Your task to perform on an android device: Find coffee shops on Maps Image 0: 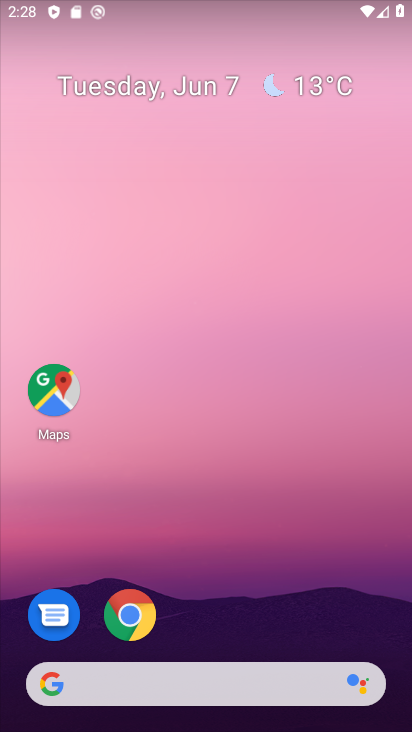
Step 0: drag from (205, 645) to (284, 136)
Your task to perform on an android device: Find coffee shops on Maps Image 1: 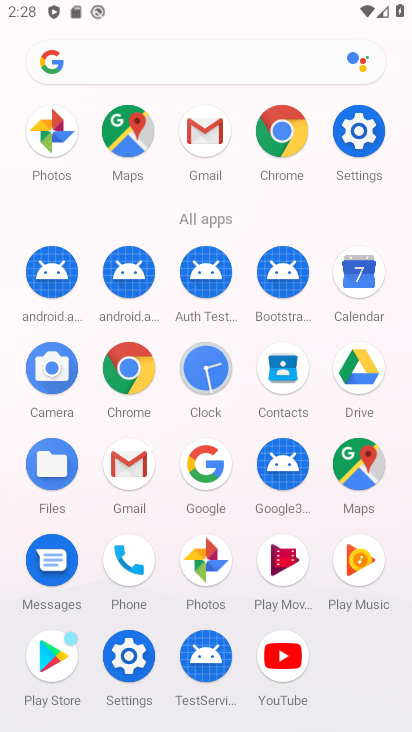
Step 1: click (354, 455)
Your task to perform on an android device: Find coffee shops on Maps Image 2: 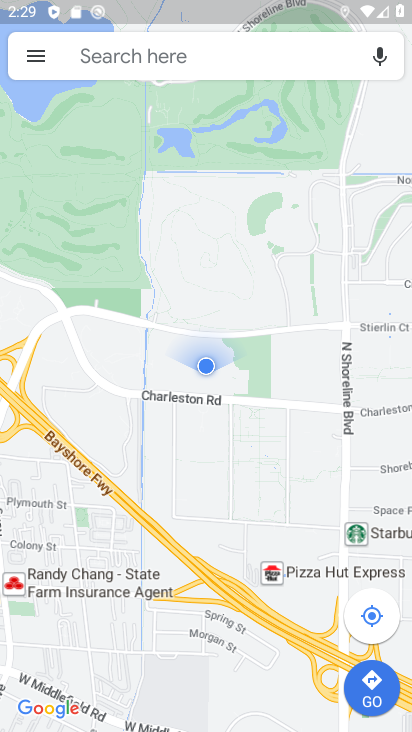
Step 2: click (205, 46)
Your task to perform on an android device: Find coffee shops on Maps Image 3: 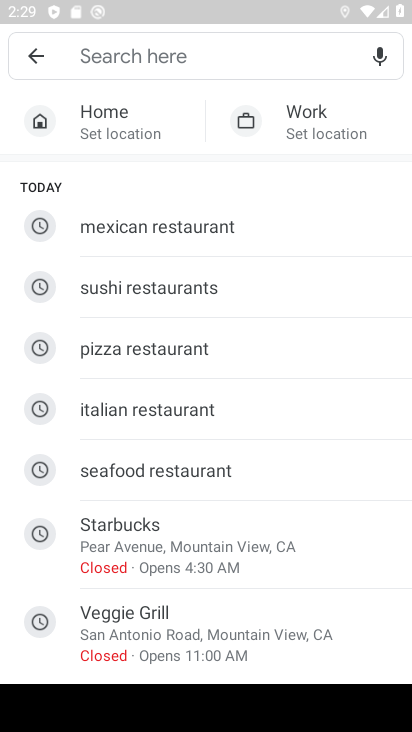
Step 3: type "Coffee shops"
Your task to perform on an android device: Find coffee shops on Maps Image 4: 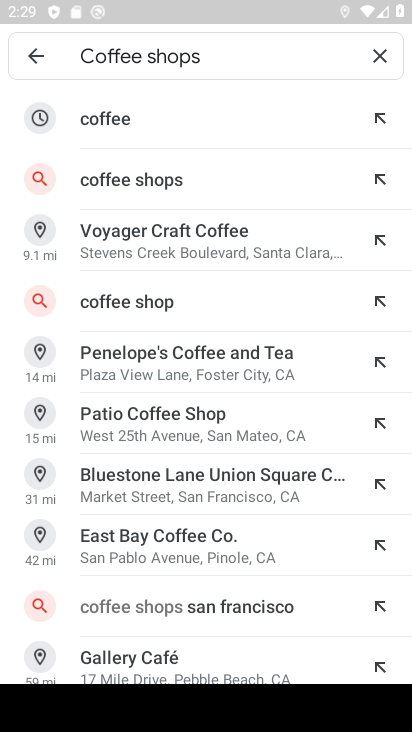
Step 4: click (280, 199)
Your task to perform on an android device: Find coffee shops on Maps Image 5: 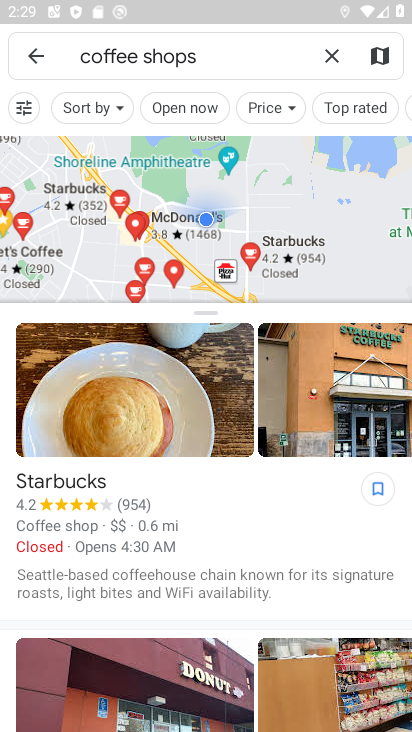
Step 5: task complete